Your task to perform on an android device: turn vacation reply on in the gmail app Image 0: 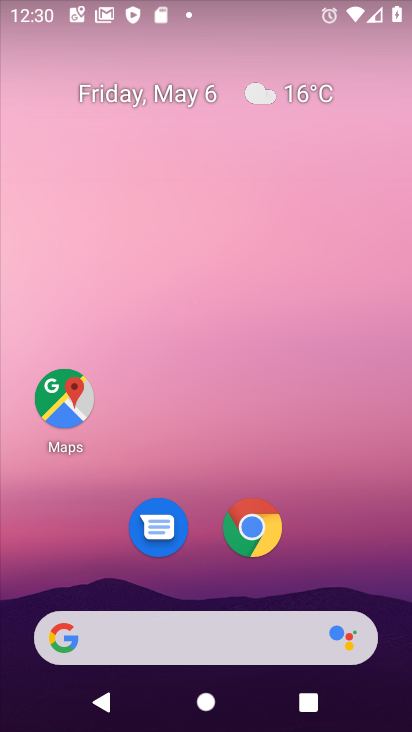
Step 0: drag from (248, 444) to (47, 138)
Your task to perform on an android device: turn vacation reply on in the gmail app Image 1: 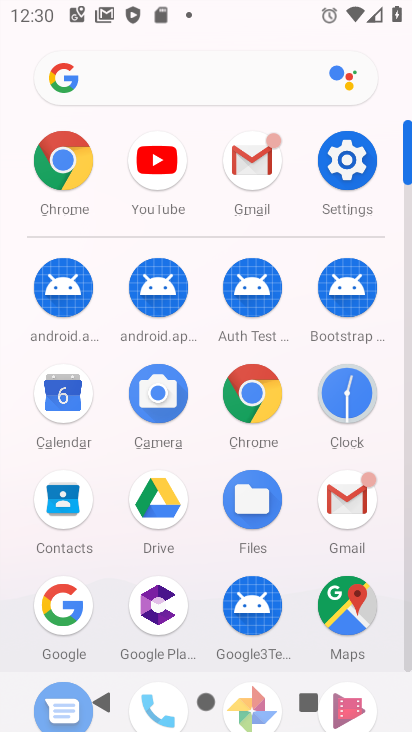
Step 1: click (345, 491)
Your task to perform on an android device: turn vacation reply on in the gmail app Image 2: 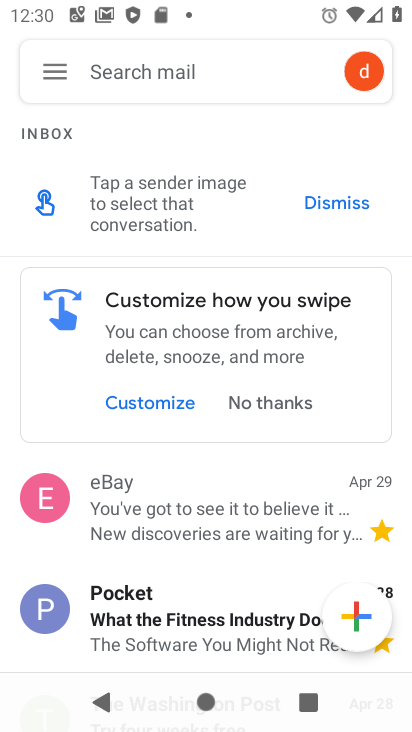
Step 2: click (56, 74)
Your task to perform on an android device: turn vacation reply on in the gmail app Image 3: 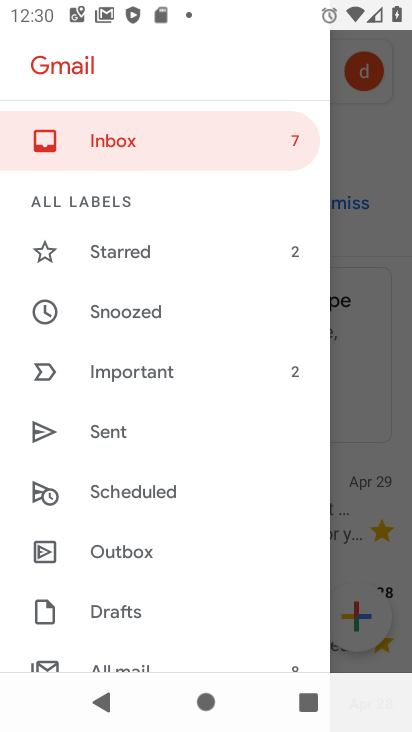
Step 3: drag from (161, 580) to (131, 205)
Your task to perform on an android device: turn vacation reply on in the gmail app Image 4: 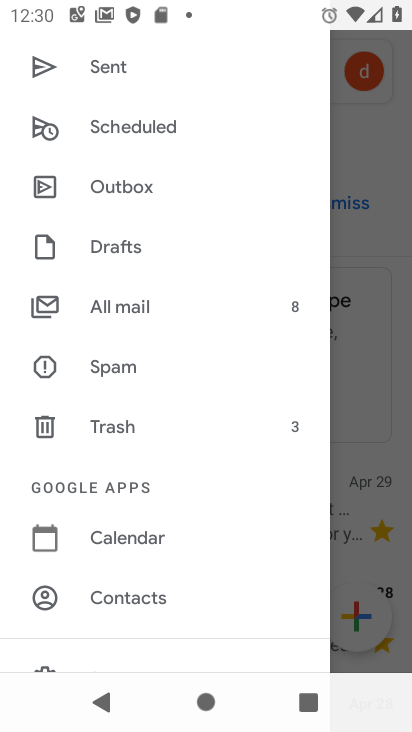
Step 4: drag from (98, 608) to (102, 319)
Your task to perform on an android device: turn vacation reply on in the gmail app Image 5: 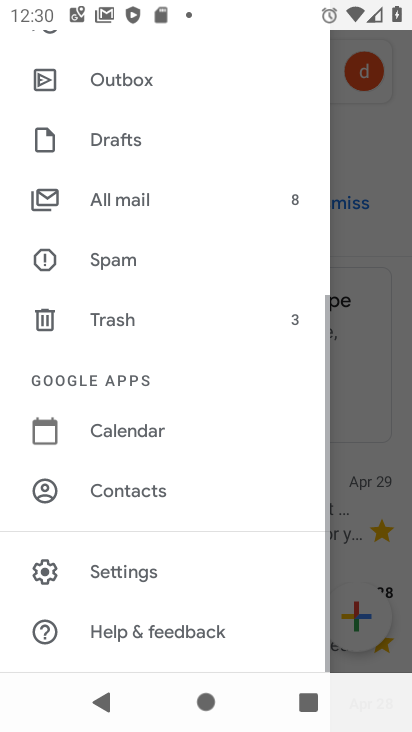
Step 5: click (103, 572)
Your task to perform on an android device: turn vacation reply on in the gmail app Image 6: 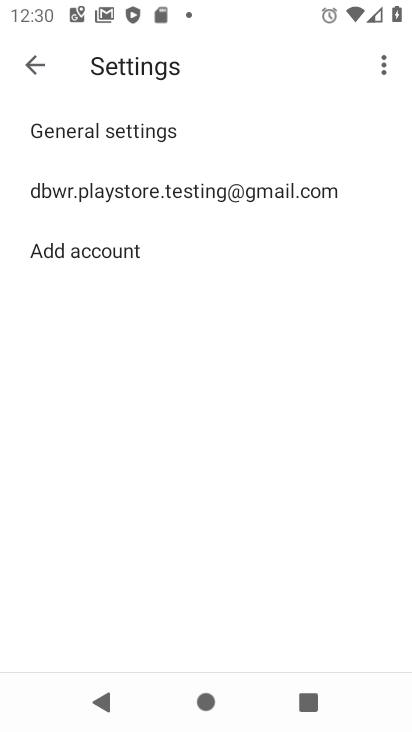
Step 6: click (211, 195)
Your task to perform on an android device: turn vacation reply on in the gmail app Image 7: 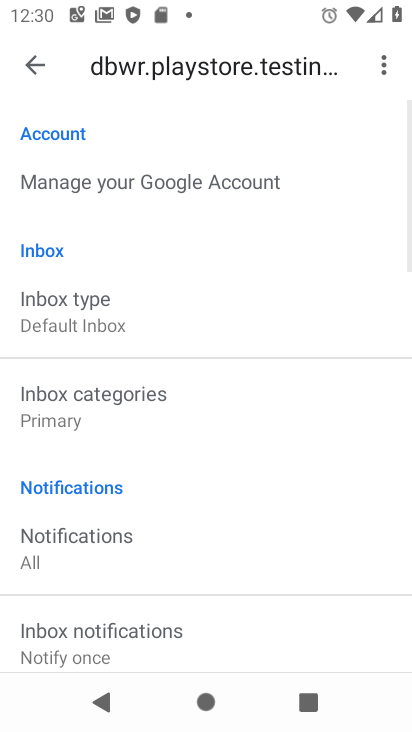
Step 7: drag from (158, 604) to (176, 226)
Your task to perform on an android device: turn vacation reply on in the gmail app Image 8: 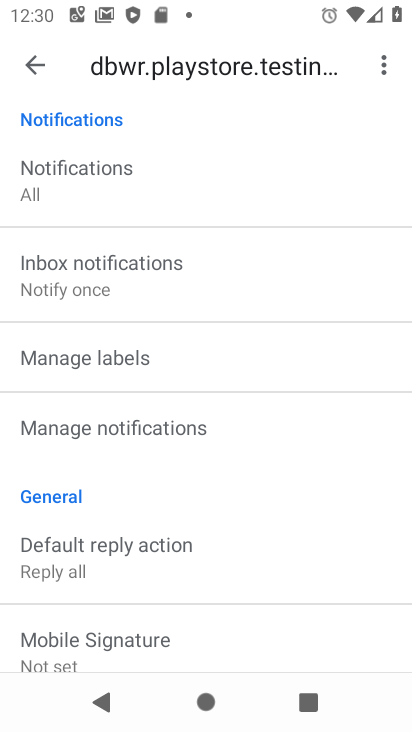
Step 8: drag from (174, 587) to (178, 222)
Your task to perform on an android device: turn vacation reply on in the gmail app Image 9: 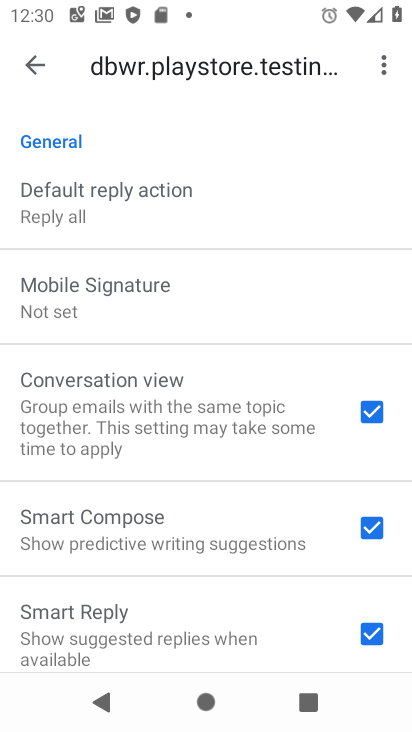
Step 9: drag from (125, 570) to (115, 224)
Your task to perform on an android device: turn vacation reply on in the gmail app Image 10: 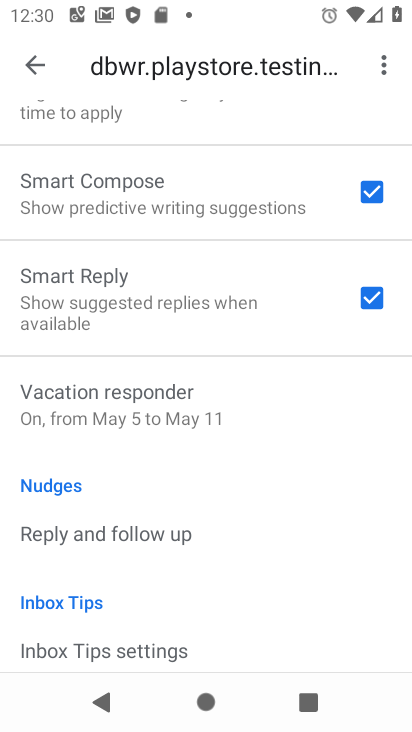
Step 10: click (96, 399)
Your task to perform on an android device: turn vacation reply on in the gmail app Image 11: 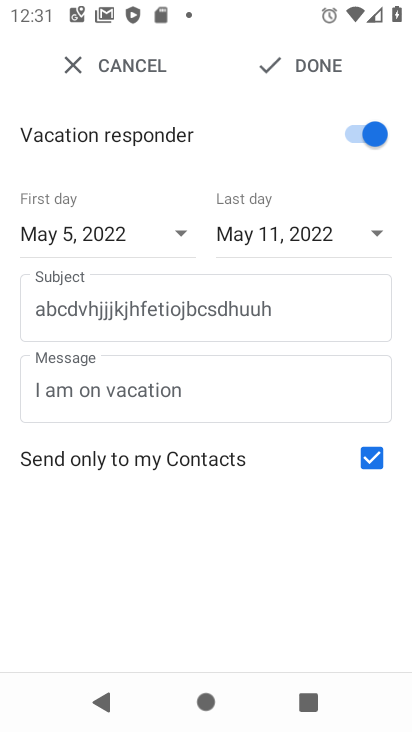
Step 11: task complete